Your task to perform on an android device: Search for seafood restaurants on Google Maps Image 0: 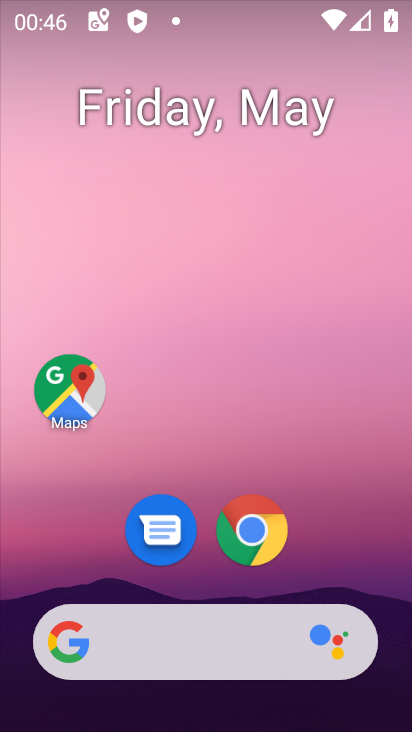
Step 0: click (70, 391)
Your task to perform on an android device: Search for seafood restaurants on Google Maps Image 1: 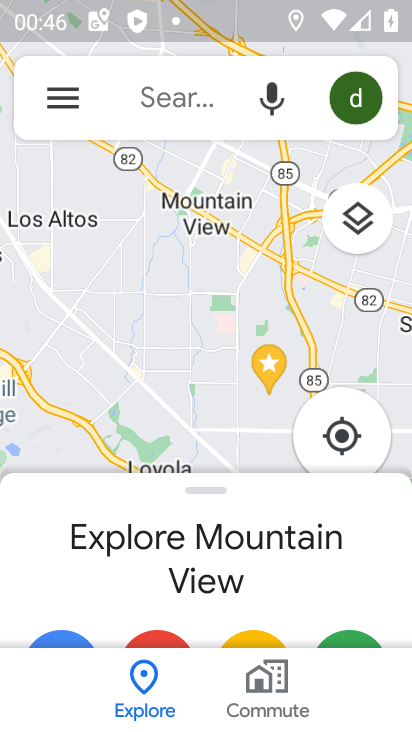
Step 1: click (173, 99)
Your task to perform on an android device: Search for seafood restaurants on Google Maps Image 2: 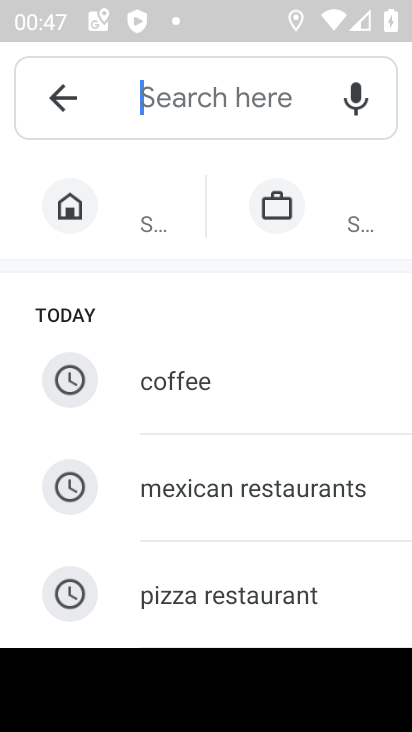
Step 2: type "seafood restaurants"
Your task to perform on an android device: Search for seafood restaurants on Google Maps Image 3: 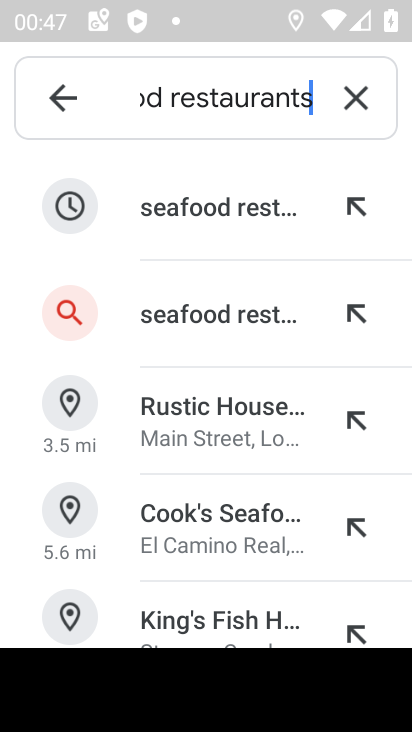
Step 3: click (196, 213)
Your task to perform on an android device: Search for seafood restaurants on Google Maps Image 4: 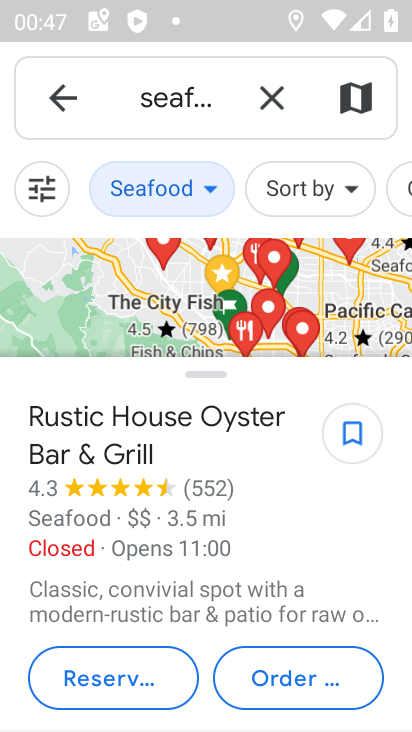
Step 4: task complete